Your task to perform on an android device: Go to Yahoo.com Image 0: 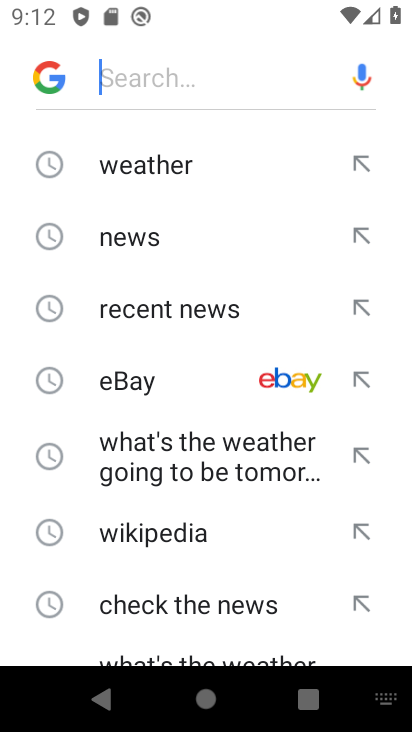
Step 0: press home button
Your task to perform on an android device: Go to Yahoo.com Image 1: 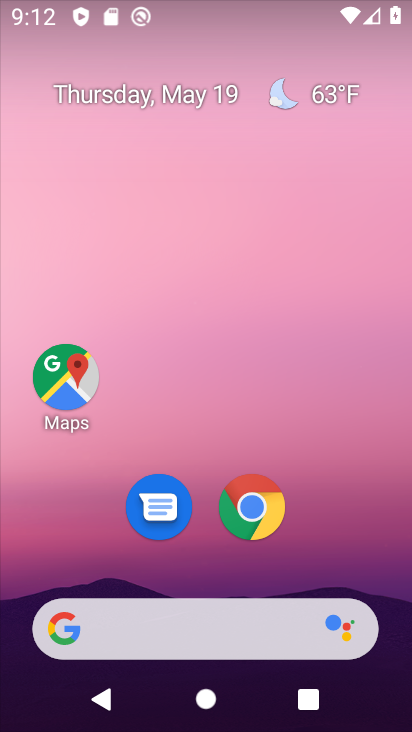
Step 1: click (232, 506)
Your task to perform on an android device: Go to Yahoo.com Image 2: 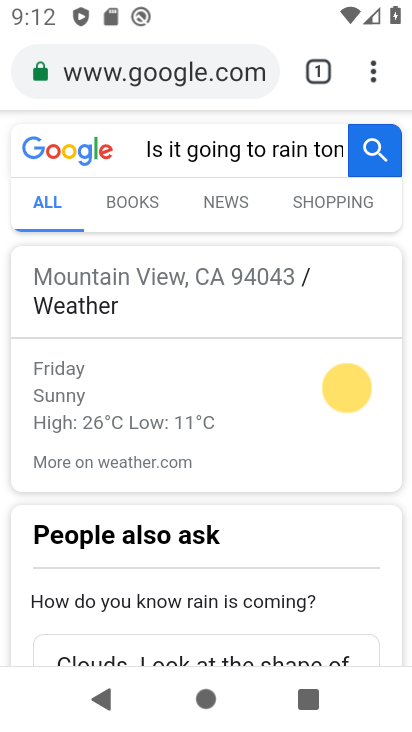
Step 2: click (311, 77)
Your task to perform on an android device: Go to Yahoo.com Image 3: 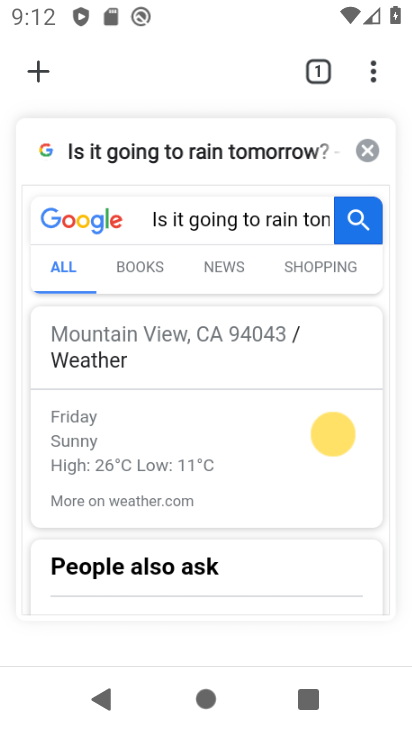
Step 3: click (34, 78)
Your task to perform on an android device: Go to Yahoo.com Image 4: 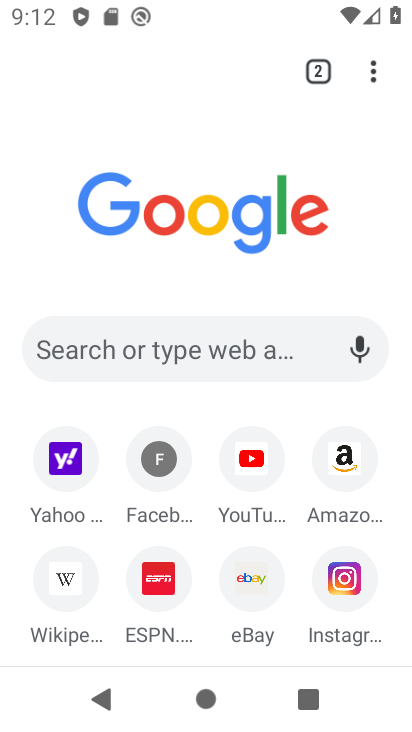
Step 4: click (66, 453)
Your task to perform on an android device: Go to Yahoo.com Image 5: 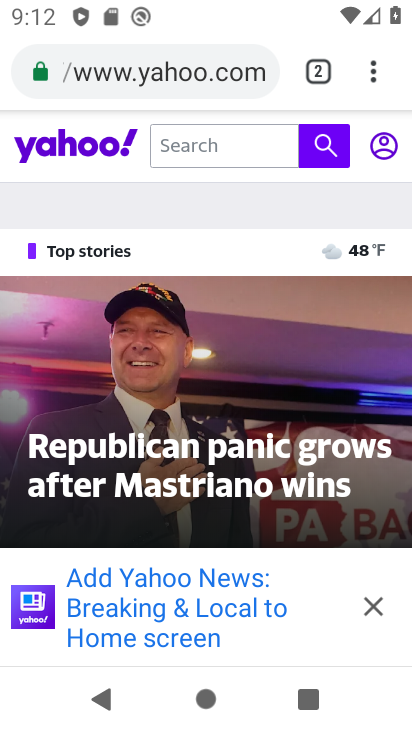
Step 5: task complete